Your task to perform on an android device: toggle pop-ups in chrome Image 0: 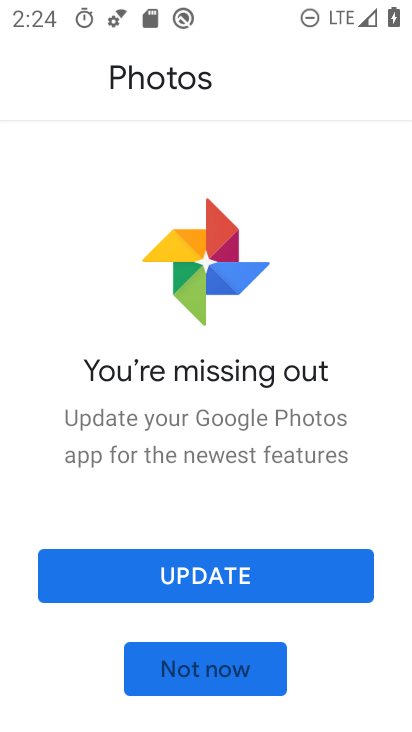
Step 0: press home button
Your task to perform on an android device: toggle pop-ups in chrome Image 1: 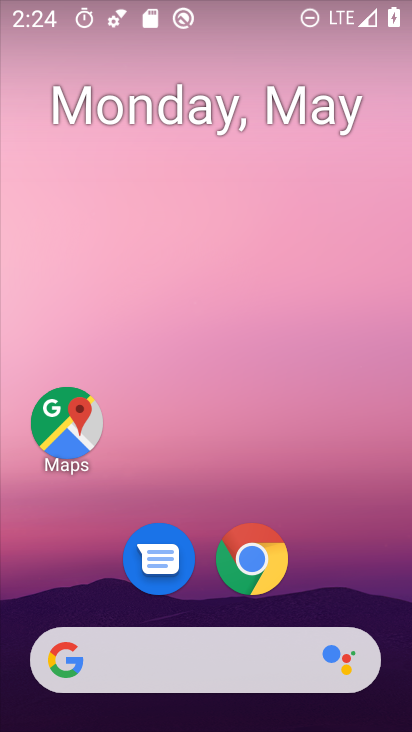
Step 1: click (253, 563)
Your task to perform on an android device: toggle pop-ups in chrome Image 2: 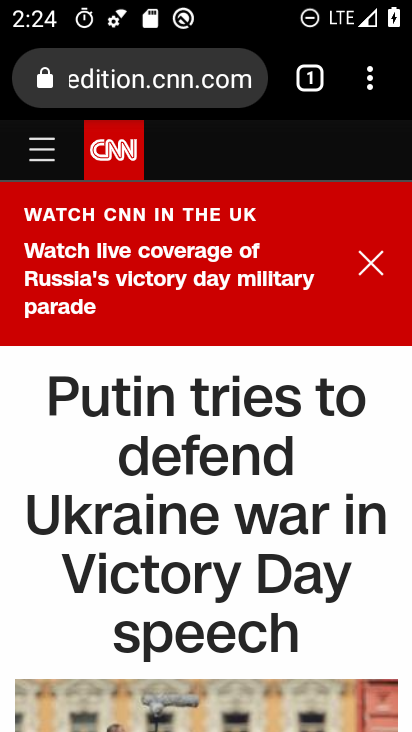
Step 2: drag from (373, 83) to (96, 622)
Your task to perform on an android device: toggle pop-ups in chrome Image 3: 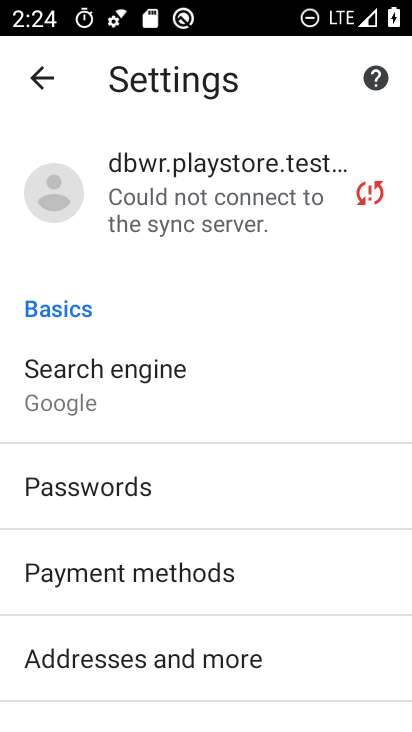
Step 3: drag from (262, 616) to (268, 274)
Your task to perform on an android device: toggle pop-ups in chrome Image 4: 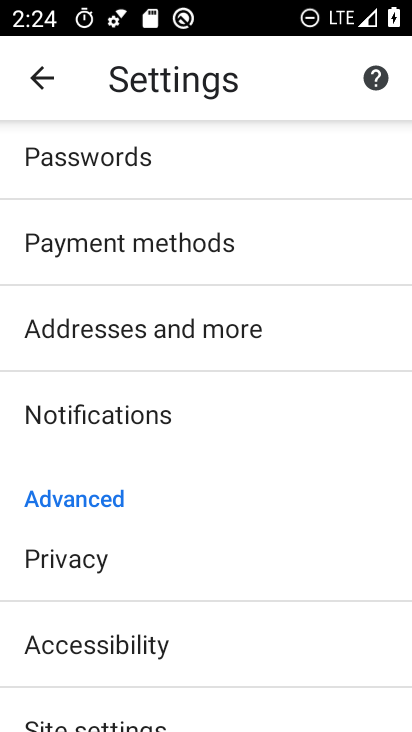
Step 4: drag from (231, 571) to (207, 342)
Your task to perform on an android device: toggle pop-ups in chrome Image 5: 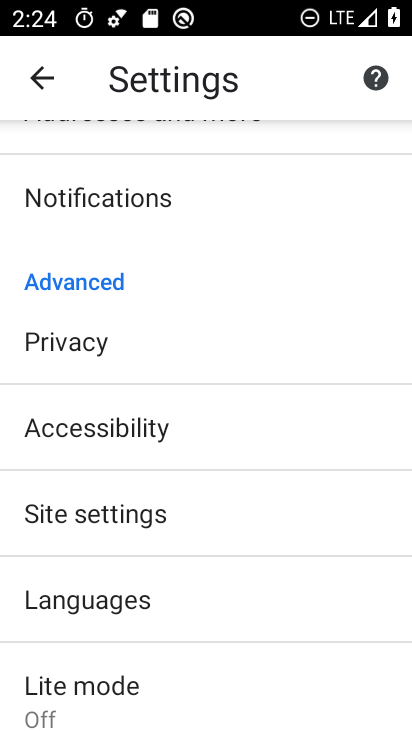
Step 5: click (130, 522)
Your task to perform on an android device: toggle pop-ups in chrome Image 6: 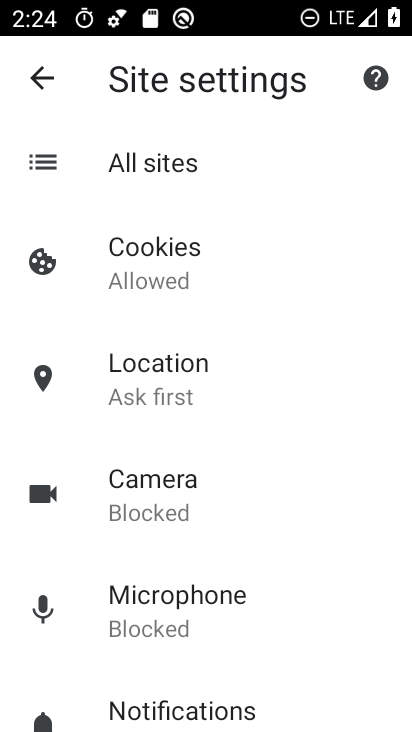
Step 6: drag from (274, 602) to (265, 221)
Your task to perform on an android device: toggle pop-ups in chrome Image 7: 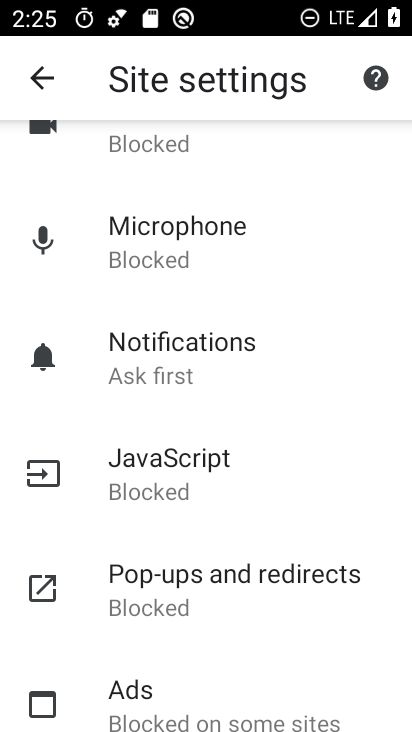
Step 7: click (173, 594)
Your task to perform on an android device: toggle pop-ups in chrome Image 8: 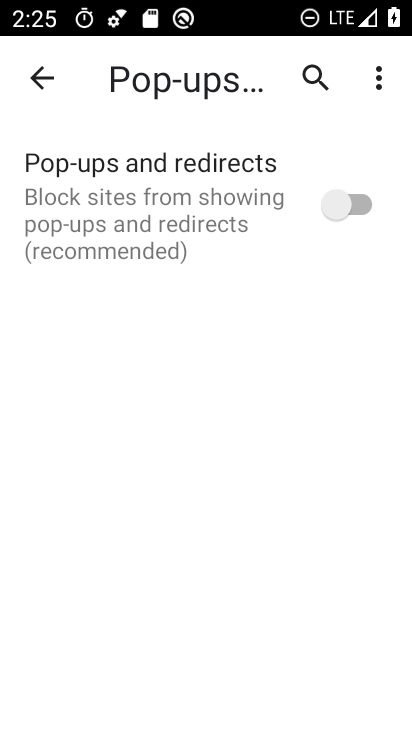
Step 8: click (339, 206)
Your task to perform on an android device: toggle pop-ups in chrome Image 9: 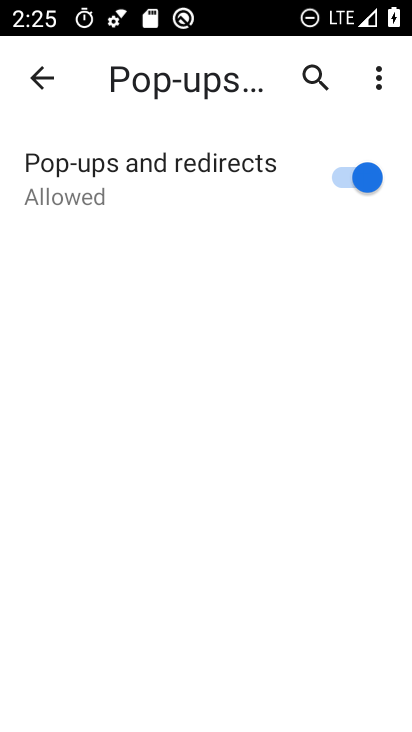
Step 9: task complete